Your task to perform on an android device: star an email in the gmail app Image 0: 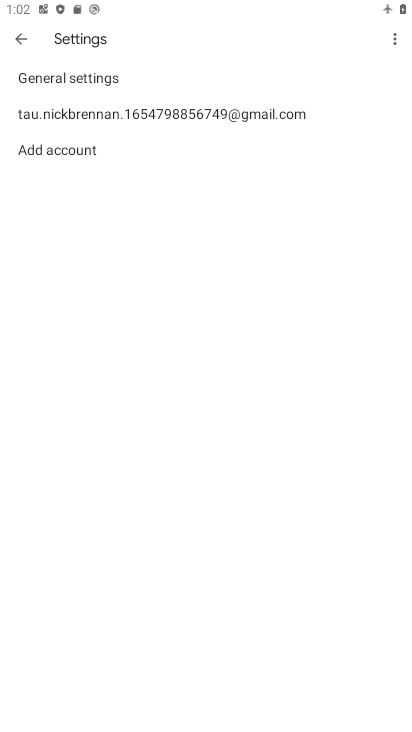
Step 0: press home button
Your task to perform on an android device: star an email in the gmail app Image 1: 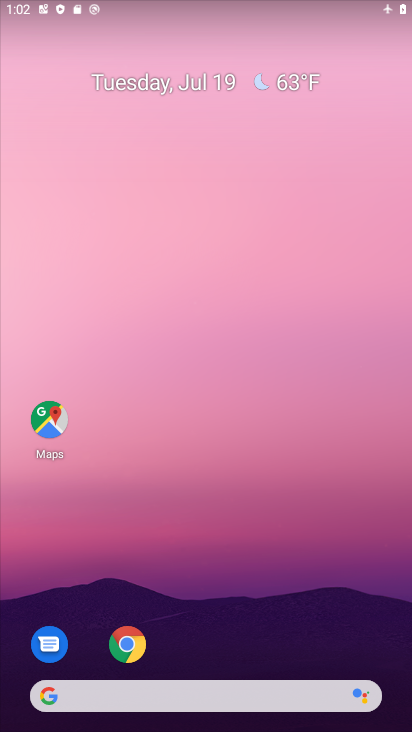
Step 1: drag from (211, 710) to (199, 177)
Your task to perform on an android device: star an email in the gmail app Image 2: 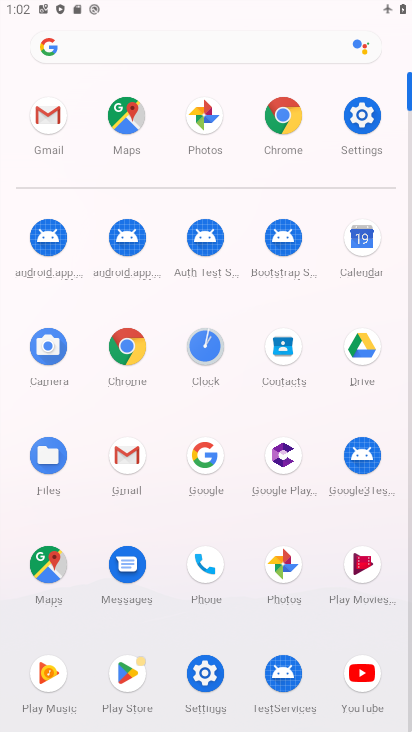
Step 2: click (117, 453)
Your task to perform on an android device: star an email in the gmail app Image 3: 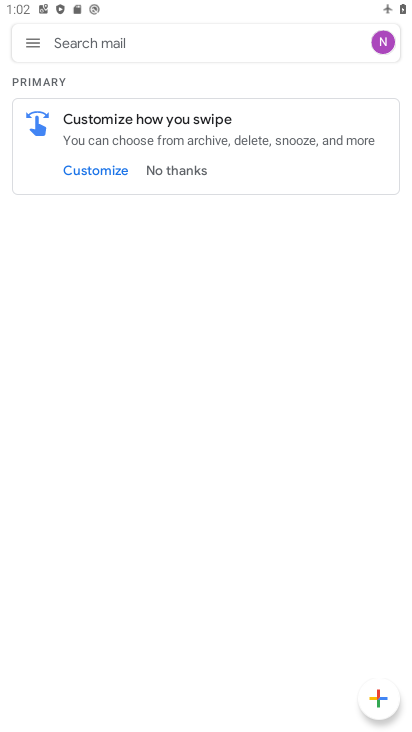
Step 3: click (33, 46)
Your task to perform on an android device: star an email in the gmail app Image 4: 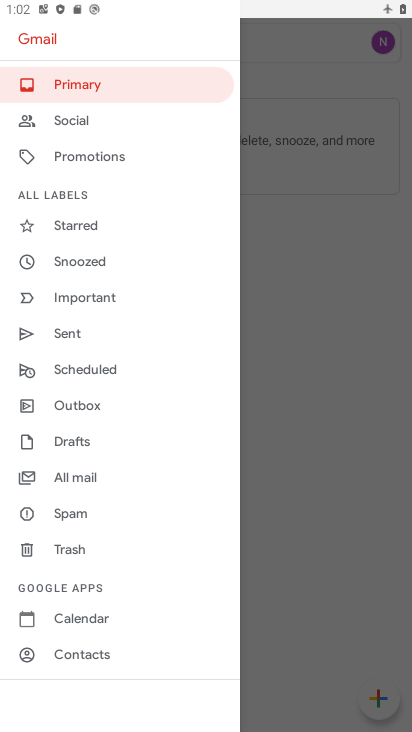
Step 4: click (78, 94)
Your task to perform on an android device: star an email in the gmail app Image 5: 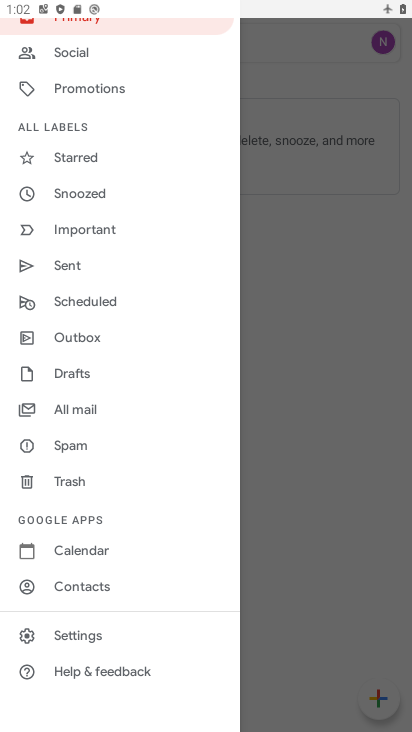
Step 5: click (96, 30)
Your task to perform on an android device: star an email in the gmail app Image 6: 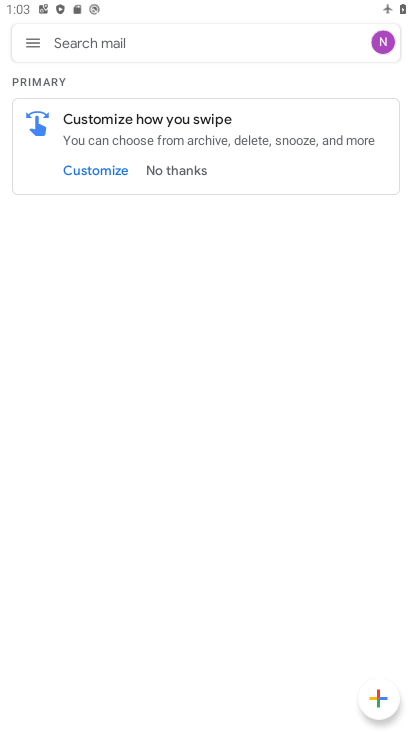
Step 6: task complete